Your task to perform on an android device: change the clock display to show seconds Image 0: 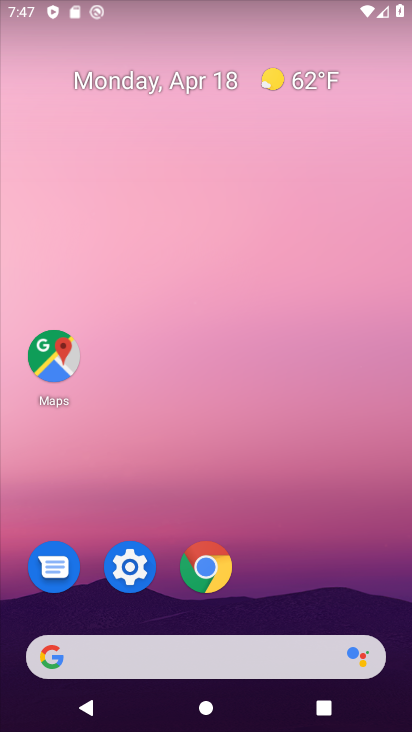
Step 0: drag from (301, 501) to (222, 151)
Your task to perform on an android device: change the clock display to show seconds Image 1: 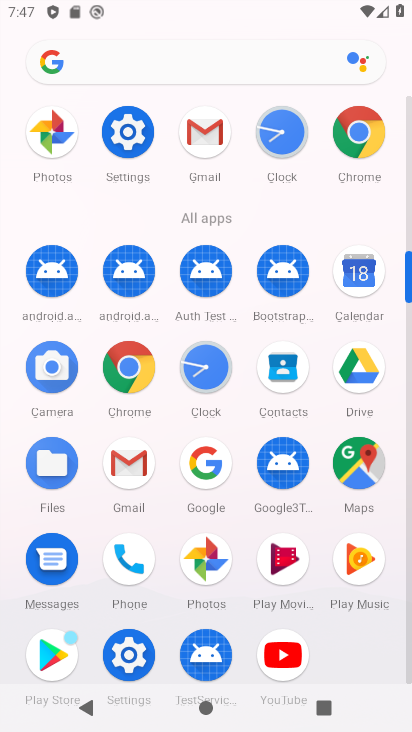
Step 1: click (285, 140)
Your task to perform on an android device: change the clock display to show seconds Image 2: 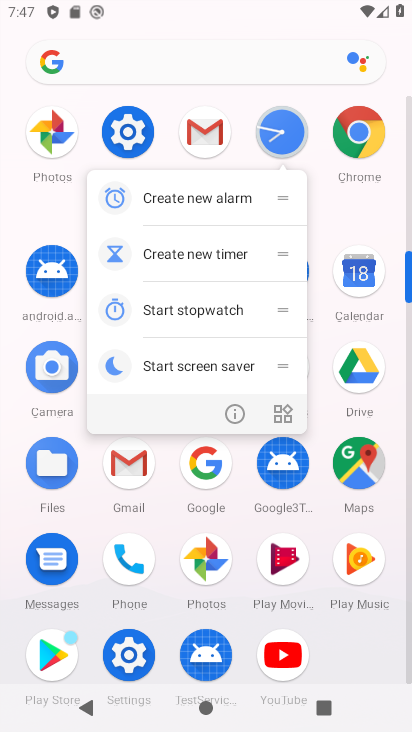
Step 2: click (285, 140)
Your task to perform on an android device: change the clock display to show seconds Image 3: 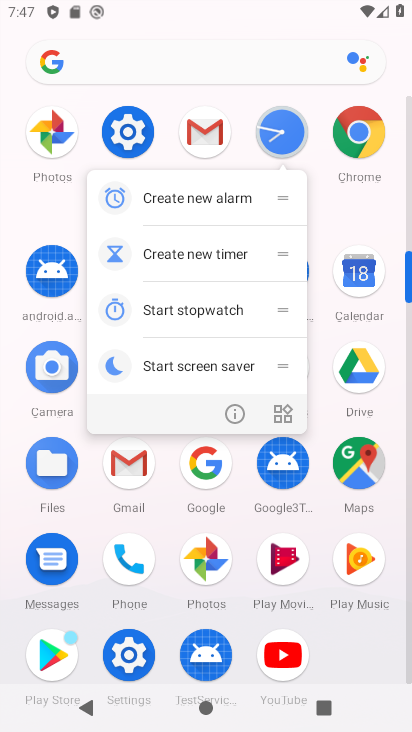
Step 3: click (281, 129)
Your task to perform on an android device: change the clock display to show seconds Image 4: 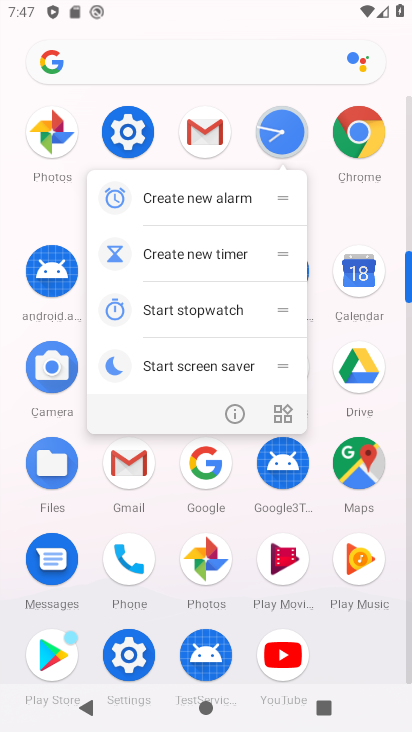
Step 4: click (281, 129)
Your task to perform on an android device: change the clock display to show seconds Image 5: 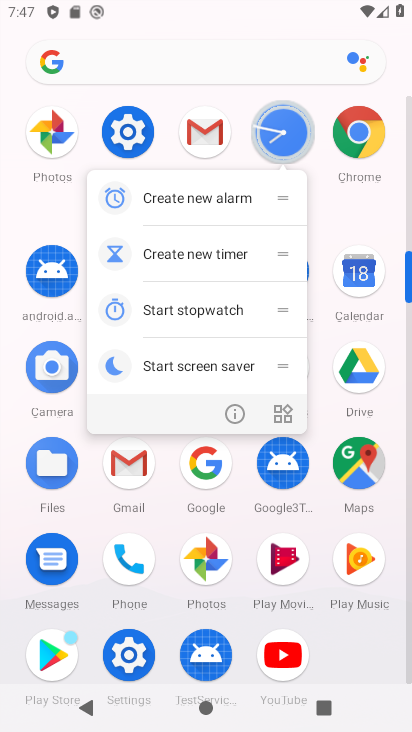
Step 5: click (281, 129)
Your task to perform on an android device: change the clock display to show seconds Image 6: 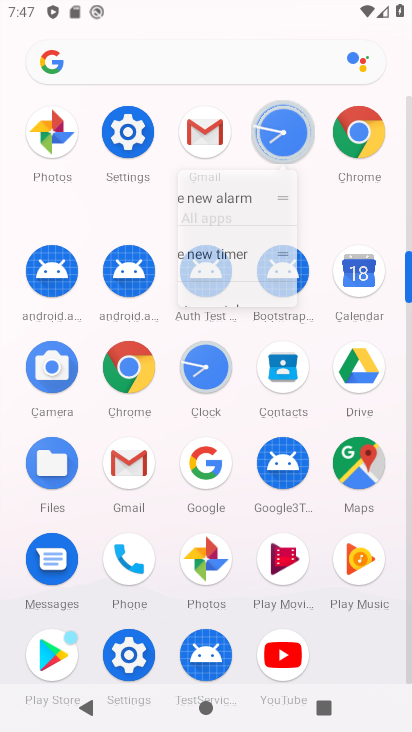
Step 6: click (281, 128)
Your task to perform on an android device: change the clock display to show seconds Image 7: 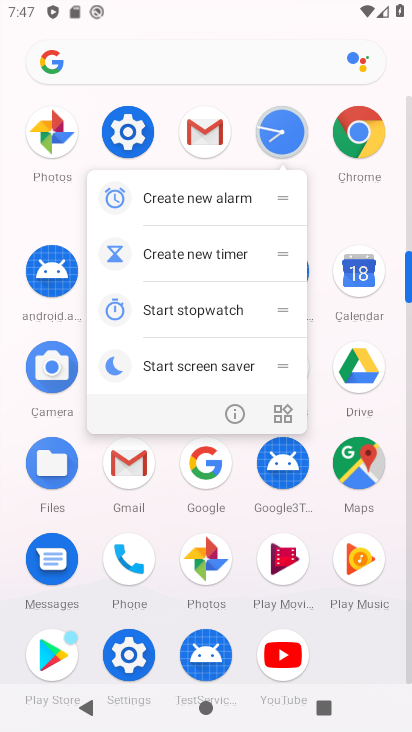
Step 7: click (286, 129)
Your task to perform on an android device: change the clock display to show seconds Image 8: 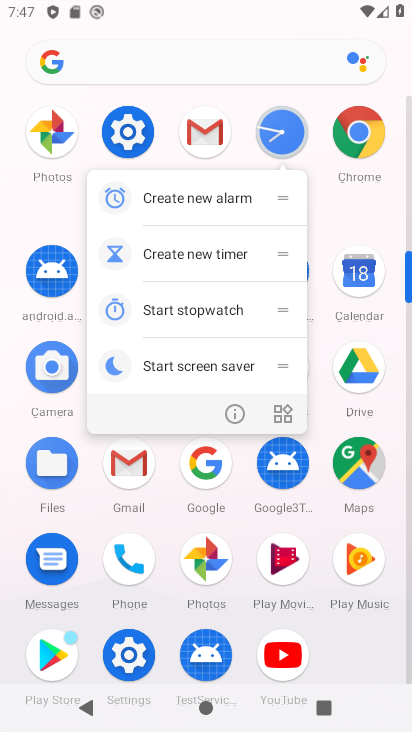
Step 8: click (270, 137)
Your task to perform on an android device: change the clock display to show seconds Image 9: 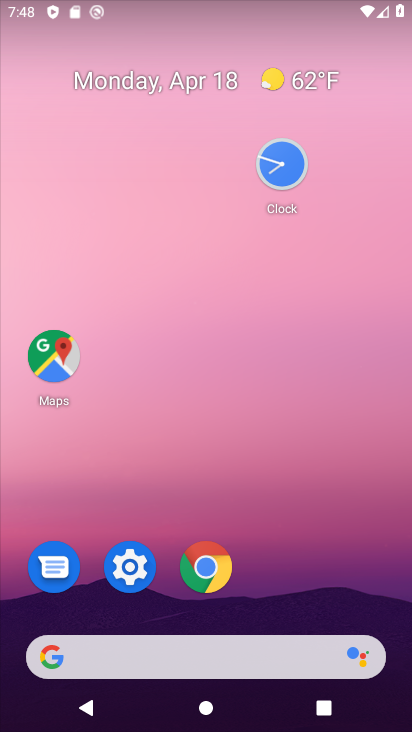
Step 9: click (272, 166)
Your task to perform on an android device: change the clock display to show seconds Image 10: 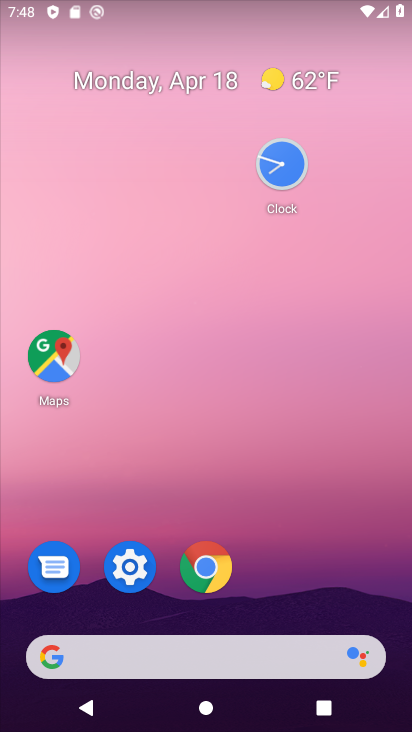
Step 10: click (274, 161)
Your task to perform on an android device: change the clock display to show seconds Image 11: 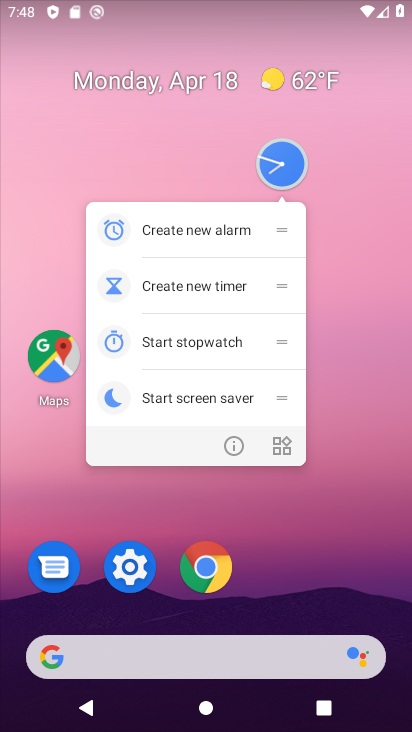
Step 11: click (274, 161)
Your task to perform on an android device: change the clock display to show seconds Image 12: 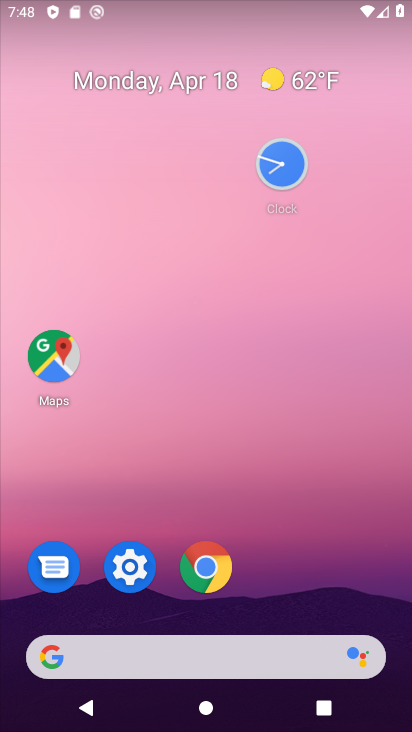
Step 12: click (354, 432)
Your task to perform on an android device: change the clock display to show seconds Image 13: 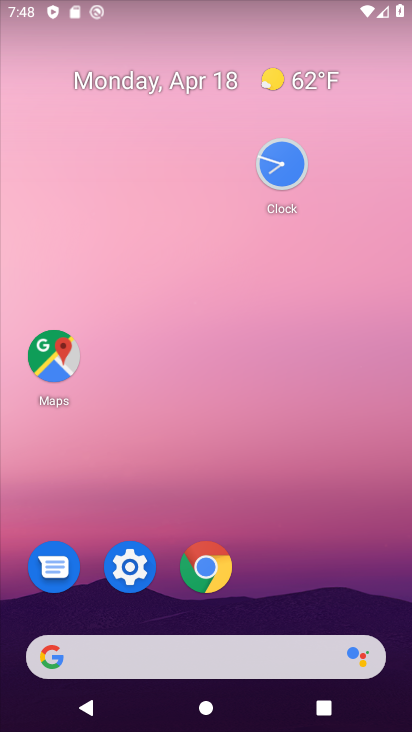
Step 13: drag from (344, 617) to (249, 179)
Your task to perform on an android device: change the clock display to show seconds Image 14: 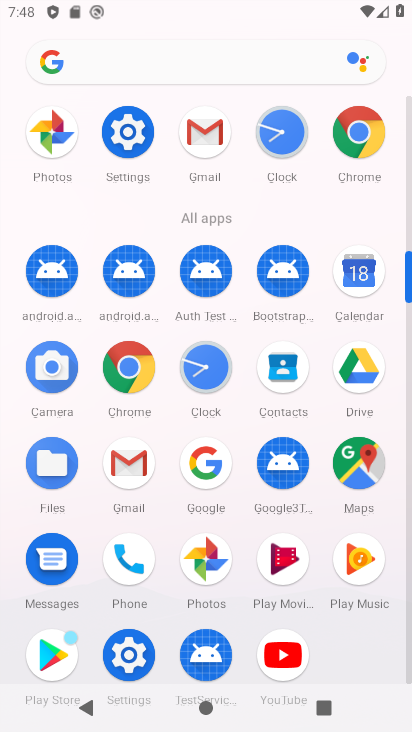
Step 14: click (279, 133)
Your task to perform on an android device: change the clock display to show seconds Image 15: 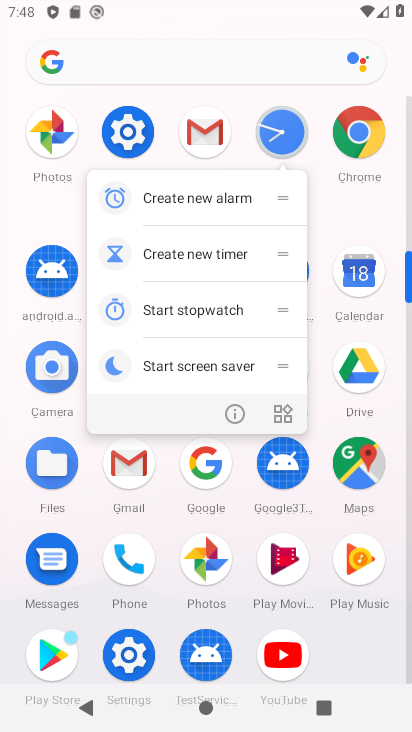
Step 15: click (216, 252)
Your task to perform on an android device: change the clock display to show seconds Image 16: 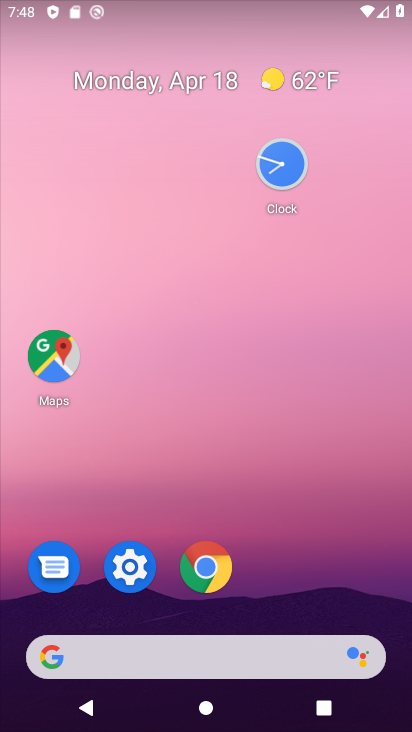
Step 16: click (273, 163)
Your task to perform on an android device: change the clock display to show seconds Image 17: 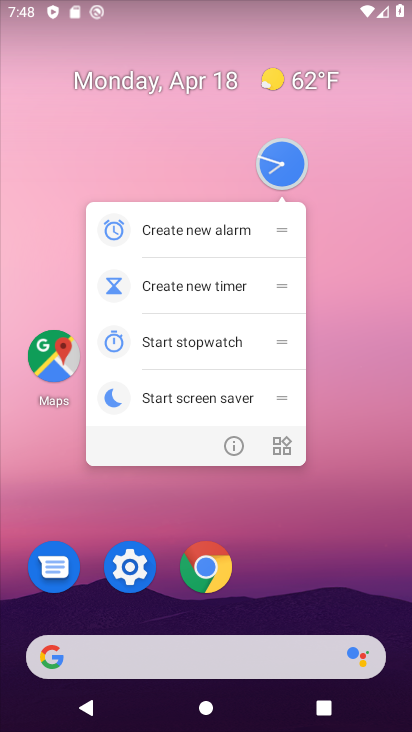
Step 17: click (274, 163)
Your task to perform on an android device: change the clock display to show seconds Image 18: 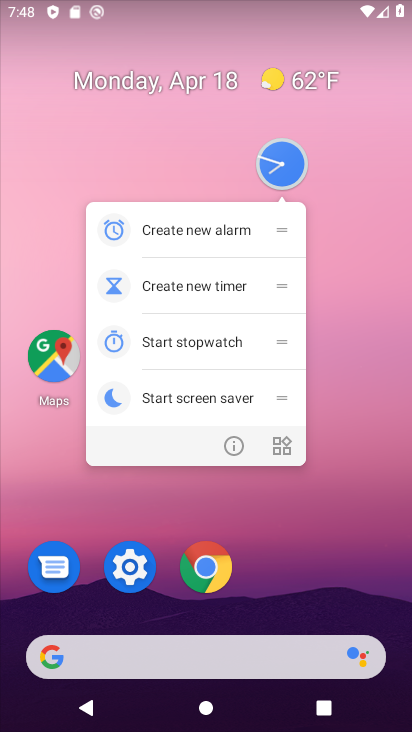
Step 18: drag from (277, 154) to (206, 231)
Your task to perform on an android device: change the clock display to show seconds Image 19: 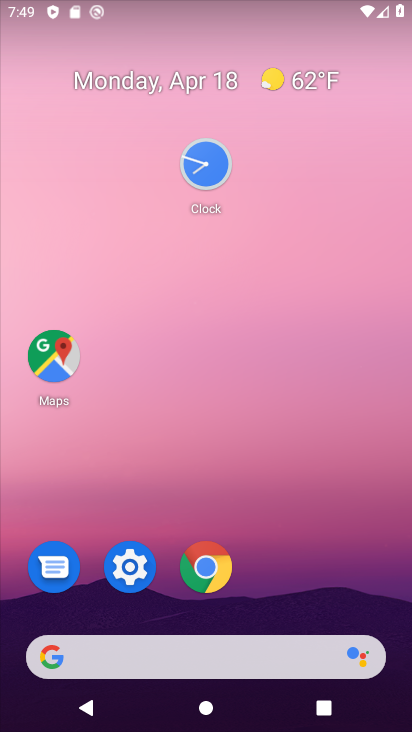
Step 19: drag from (367, 589) to (207, 12)
Your task to perform on an android device: change the clock display to show seconds Image 20: 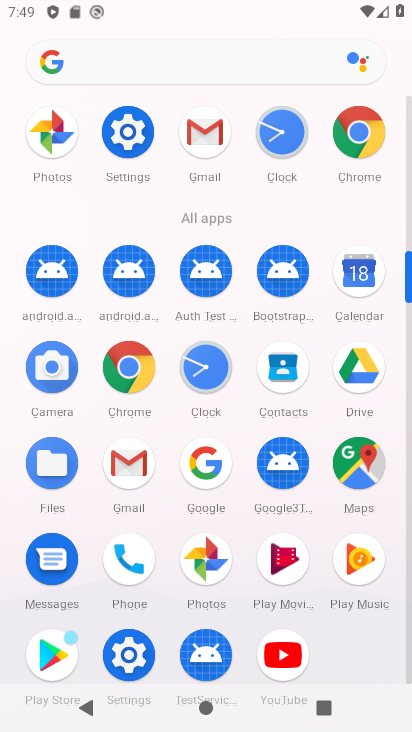
Step 20: click (276, 134)
Your task to perform on an android device: change the clock display to show seconds Image 21: 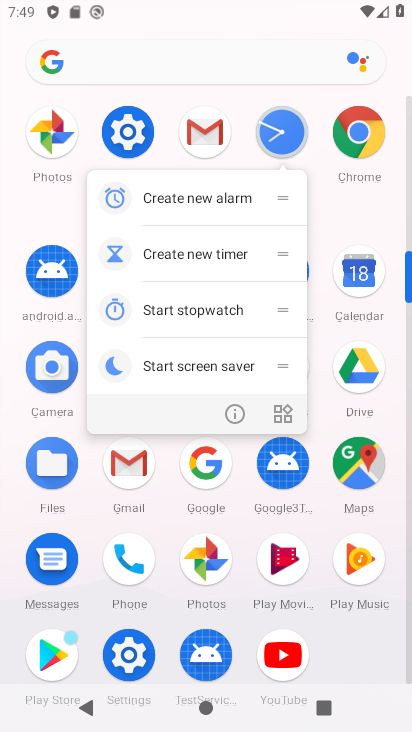
Step 21: click (276, 134)
Your task to perform on an android device: change the clock display to show seconds Image 22: 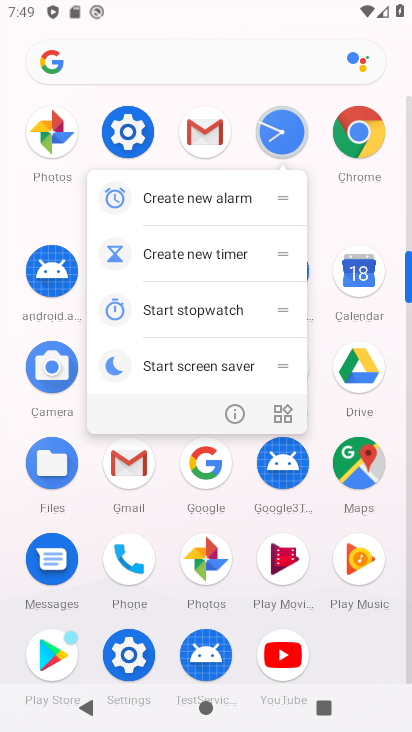
Step 22: click (276, 134)
Your task to perform on an android device: change the clock display to show seconds Image 23: 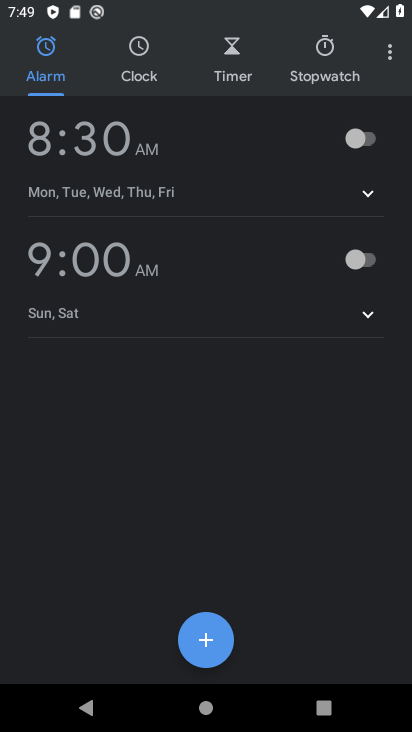
Step 23: click (385, 46)
Your task to perform on an android device: change the clock display to show seconds Image 24: 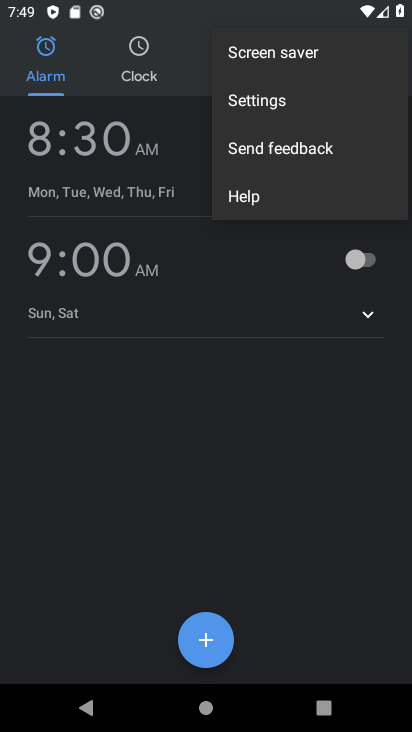
Step 24: click (249, 107)
Your task to perform on an android device: change the clock display to show seconds Image 25: 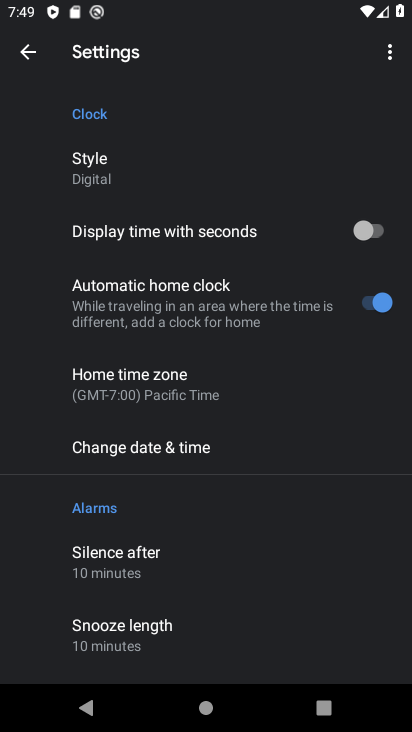
Step 25: drag from (255, 589) to (249, 65)
Your task to perform on an android device: change the clock display to show seconds Image 26: 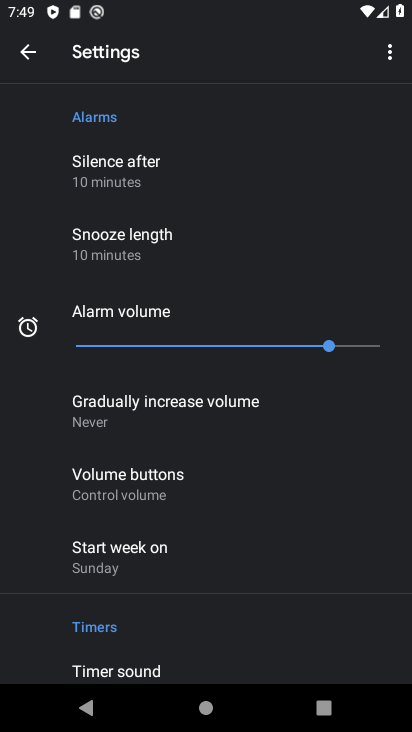
Step 26: click (27, 53)
Your task to perform on an android device: change the clock display to show seconds Image 27: 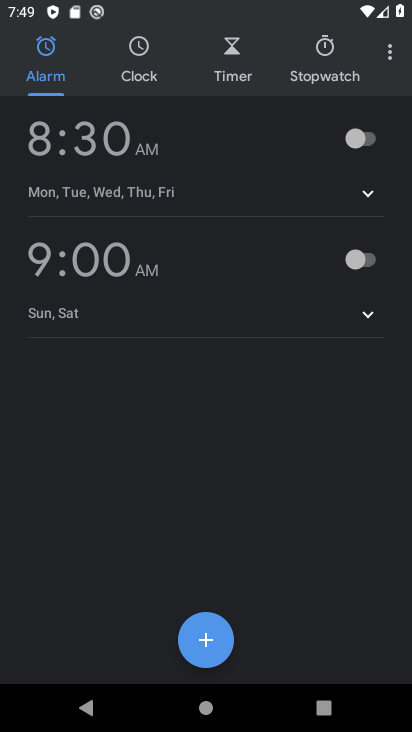
Step 27: click (390, 46)
Your task to perform on an android device: change the clock display to show seconds Image 28: 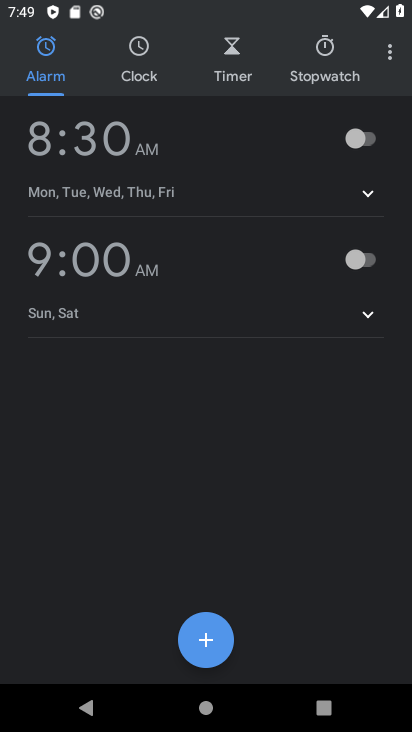
Step 28: click (372, 99)
Your task to perform on an android device: change the clock display to show seconds Image 29: 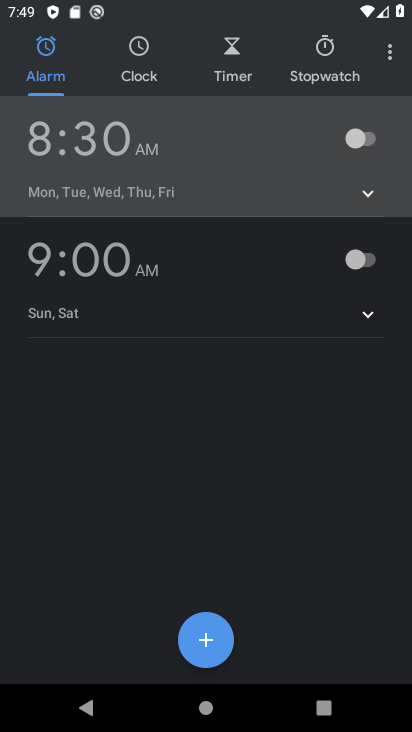
Step 29: click (387, 43)
Your task to perform on an android device: change the clock display to show seconds Image 30: 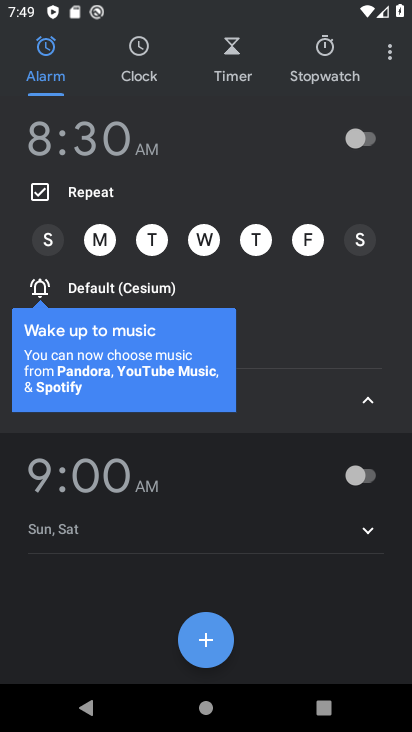
Step 30: click (388, 56)
Your task to perform on an android device: change the clock display to show seconds Image 31: 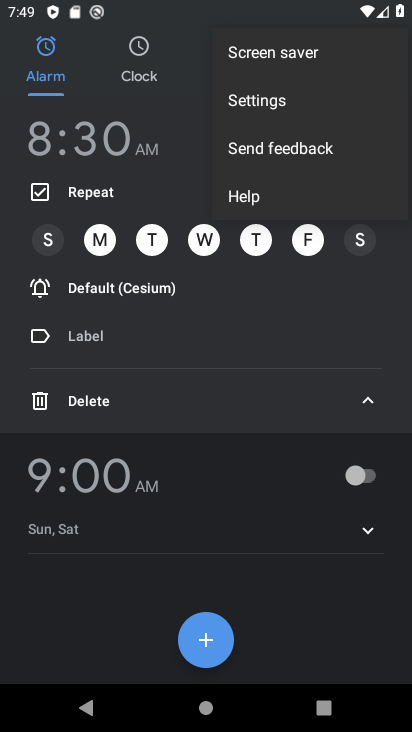
Step 31: click (267, 103)
Your task to perform on an android device: change the clock display to show seconds Image 32: 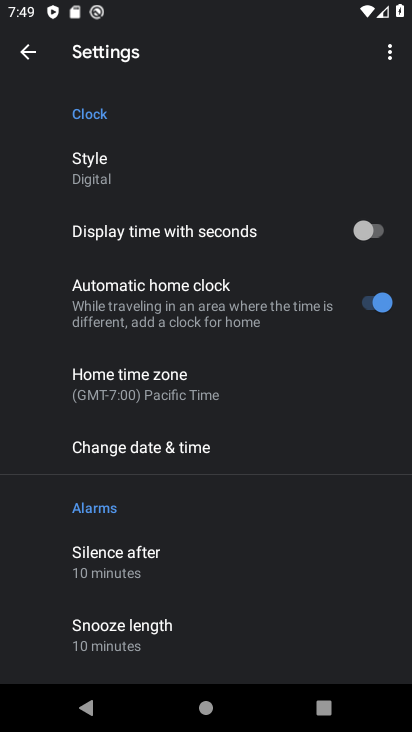
Step 32: drag from (223, 551) to (218, 225)
Your task to perform on an android device: change the clock display to show seconds Image 33: 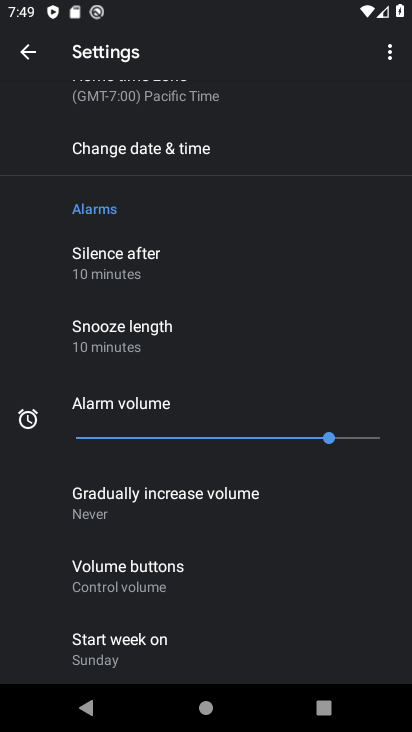
Step 33: drag from (193, 555) to (180, 70)
Your task to perform on an android device: change the clock display to show seconds Image 34: 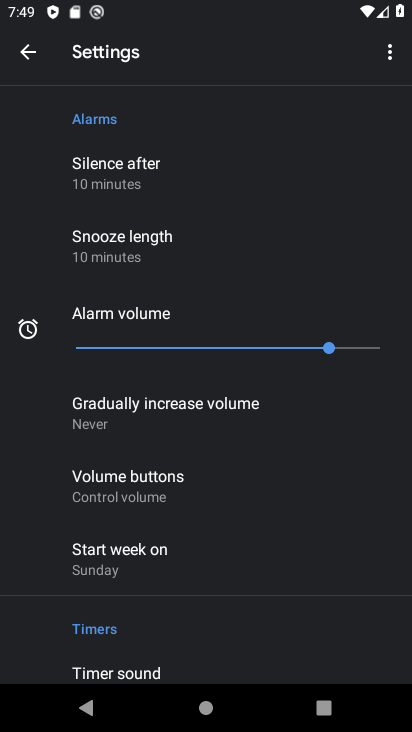
Step 34: drag from (258, 576) to (215, 5)
Your task to perform on an android device: change the clock display to show seconds Image 35: 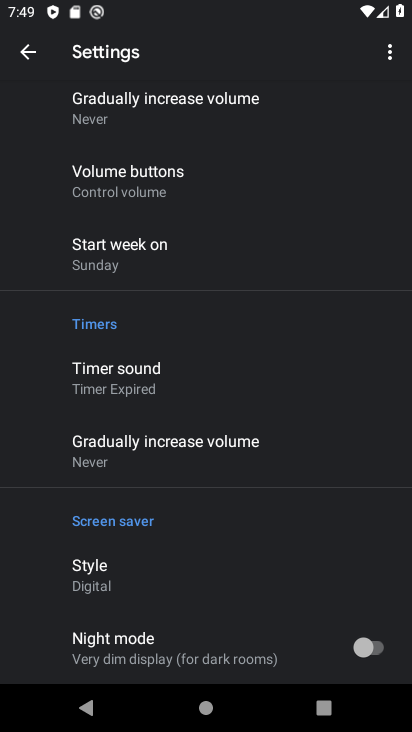
Step 35: drag from (225, 486) to (225, 23)
Your task to perform on an android device: change the clock display to show seconds Image 36: 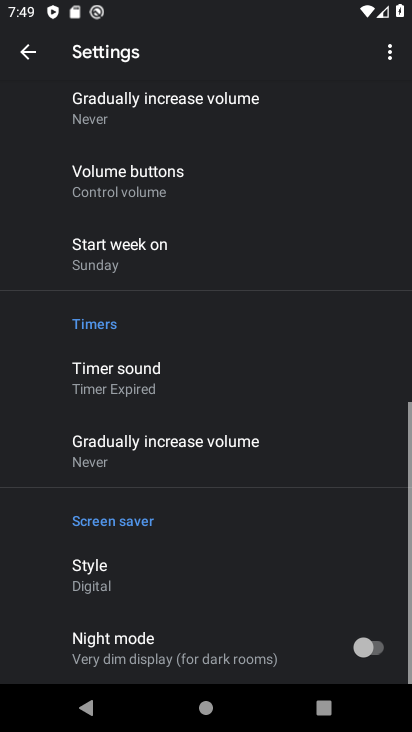
Step 36: drag from (173, 251) to (168, 137)
Your task to perform on an android device: change the clock display to show seconds Image 37: 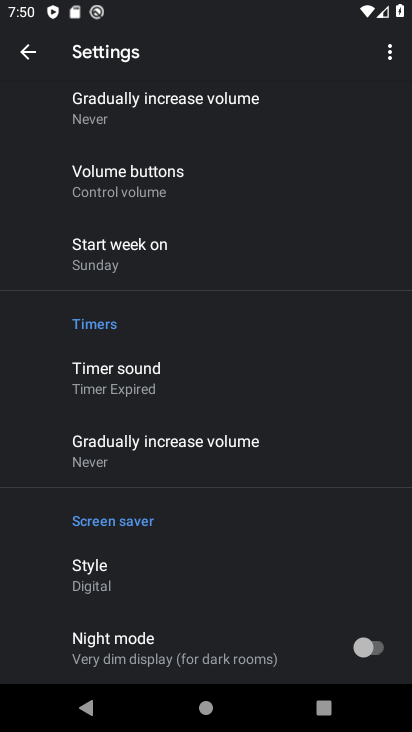
Step 37: drag from (234, 605) to (126, 89)
Your task to perform on an android device: change the clock display to show seconds Image 38: 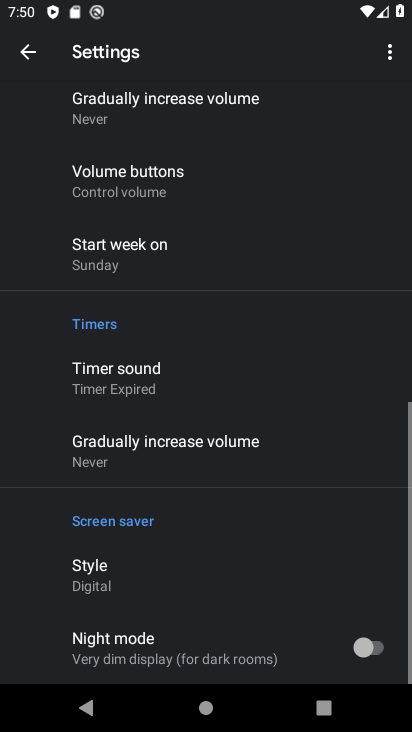
Step 38: drag from (177, 161) to (224, 487)
Your task to perform on an android device: change the clock display to show seconds Image 39: 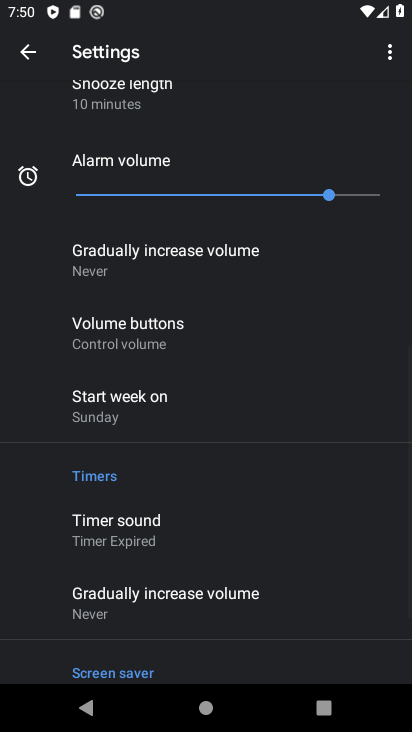
Step 39: drag from (177, 241) to (217, 504)
Your task to perform on an android device: change the clock display to show seconds Image 40: 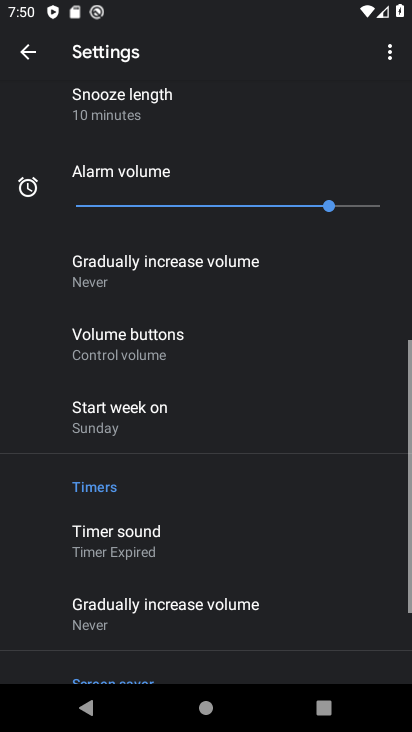
Step 40: drag from (210, 264) to (258, 579)
Your task to perform on an android device: change the clock display to show seconds Image 41: 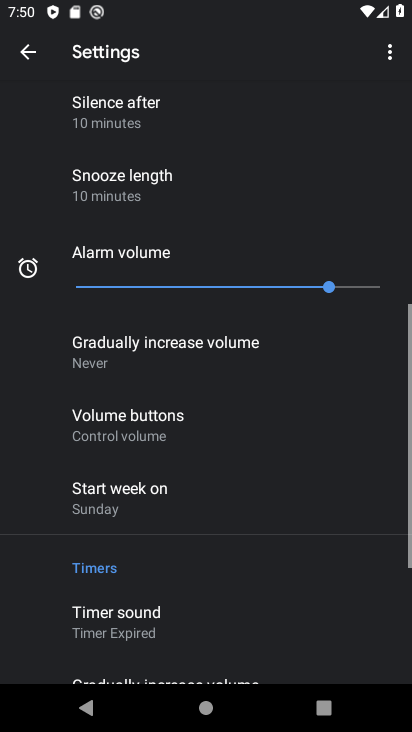
Step 41: drag from (258, 213) to (262, 496)
Your task to perform on an android device: change the clock display to show seconds Image 42: 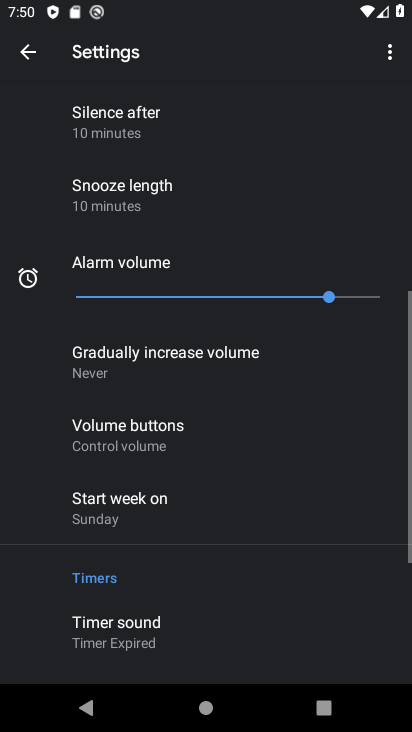
Step 42: drag from (234, 234) to (248, 540)
Your task to perform on an android device: change the clock display to show seconds Image 43: 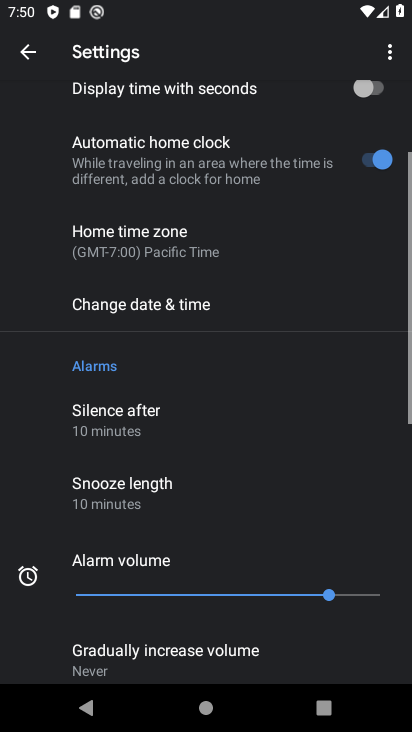
Step 43: drag from (249, 204) to (210, 552)
Your task to perform on an android device: change the clock display to show seconds Image 44: 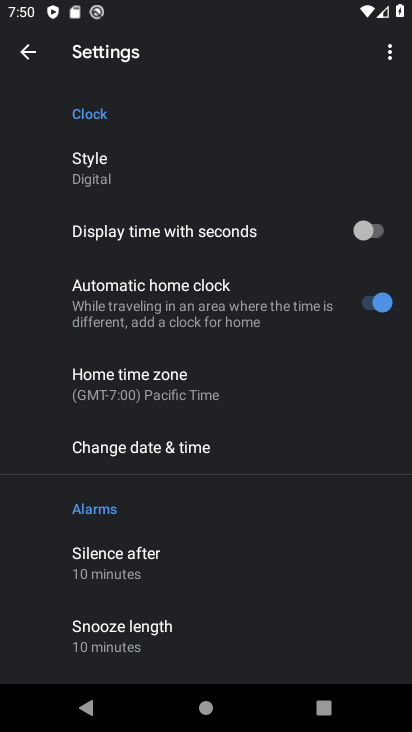
Step 44: click (372, 234)
Your task to perform on an android device: change the clock display to show seconds Image 45: 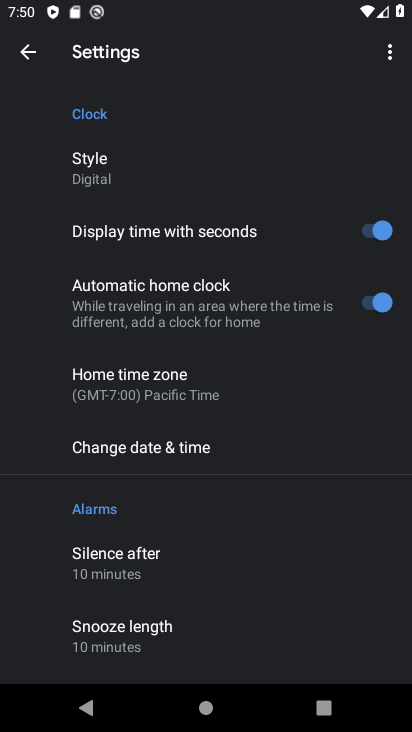
Step 45: task complete